Your task to perform on an android device: Is it going to rain today? Image 0: 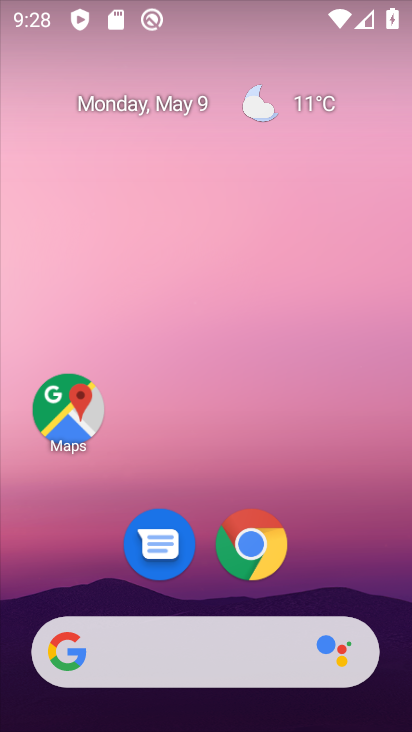
Step 0: click (317, 98)
Your task to perform on an android device: Is it going to rain today? Image 1: 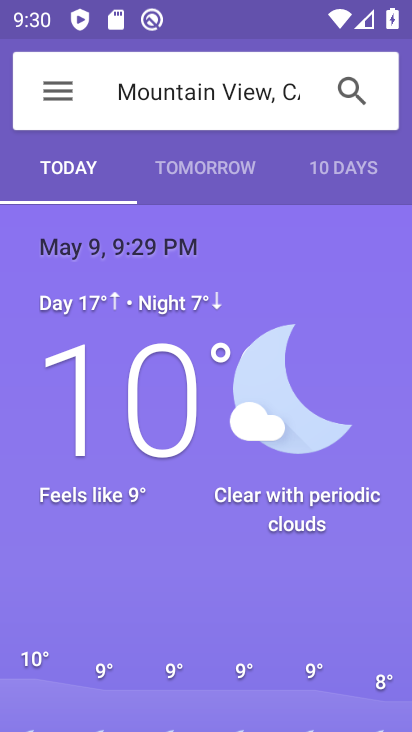
Step 1: task complete